Your task to perform on an android device: turn pop-ups on in chrome Image 0: 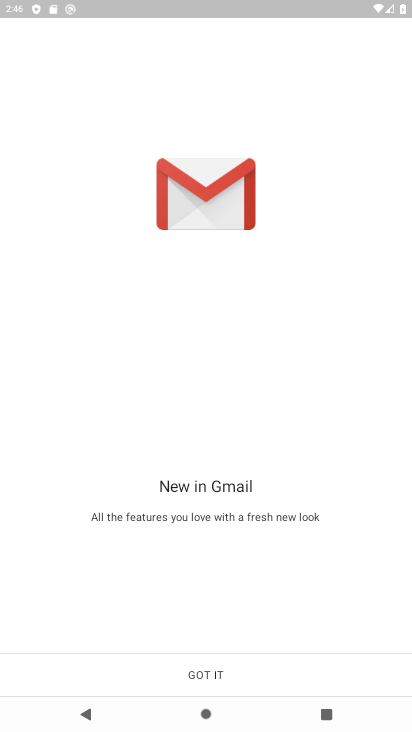
Step 0: press home button
Your task to perform on an android device: turn pop-ups on in chrome Image 1: 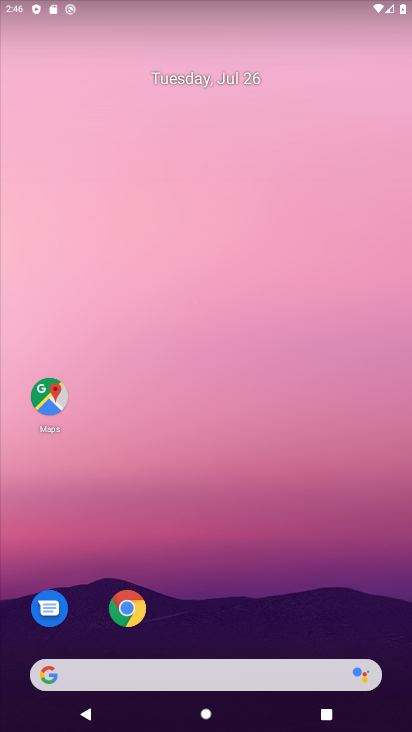
Step 1: click (136, 610)
Your task to perform on an android device: turn pop-ups on in chrome Image 2: 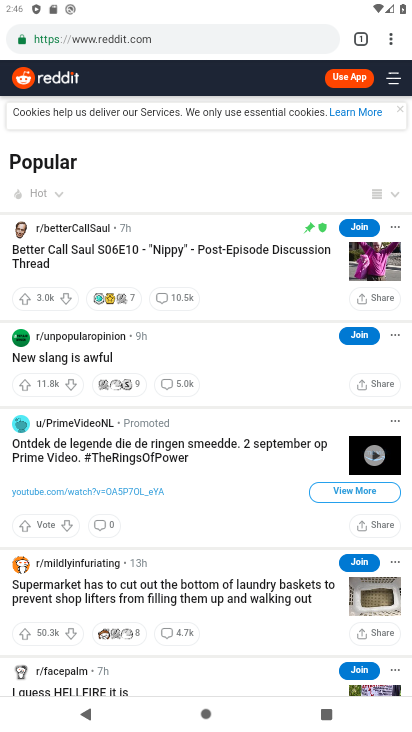
Step 2: click (402, 49)
Your task to perform on an android device: turn pop-ups on in chrome Image 3: 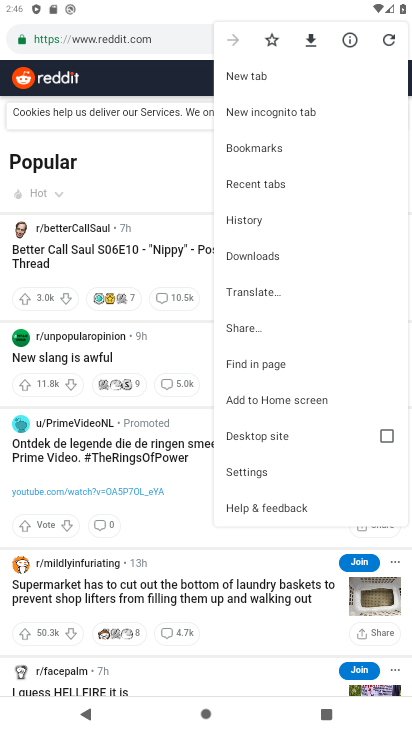
Step 3: click (234, 476)
Your task to perform on an android device: turn pop-ups on in chrome Image 4: 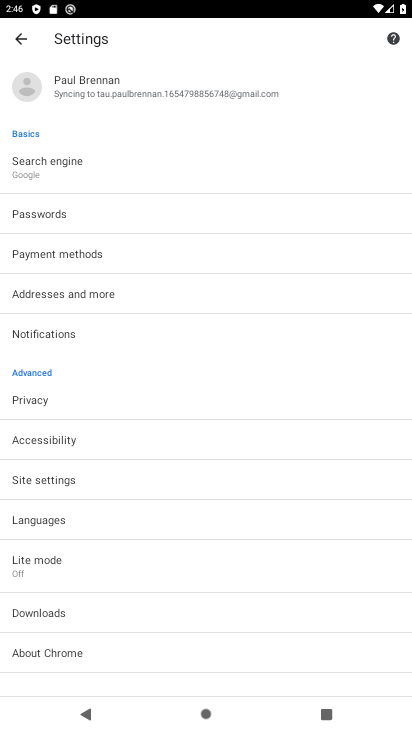
Step 4: drag from (81, 570) to (86, 302)
Your task to perform on an android device: turn pop-ups on in chrome Image 5: 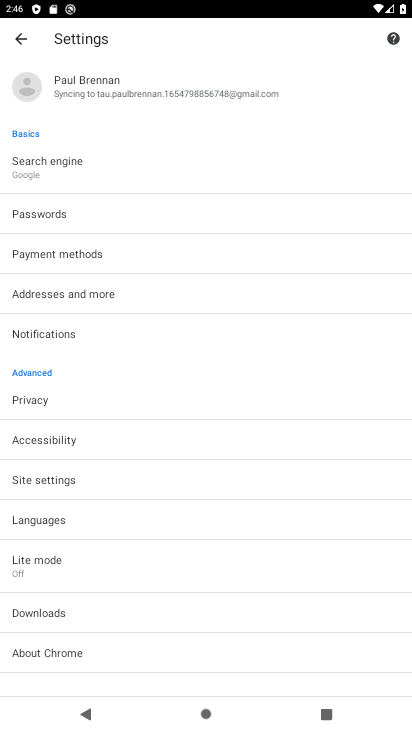
Step 5: click (62, 476)
Your task to perform on an android device: turn pop-ups on in chrome Image 6: 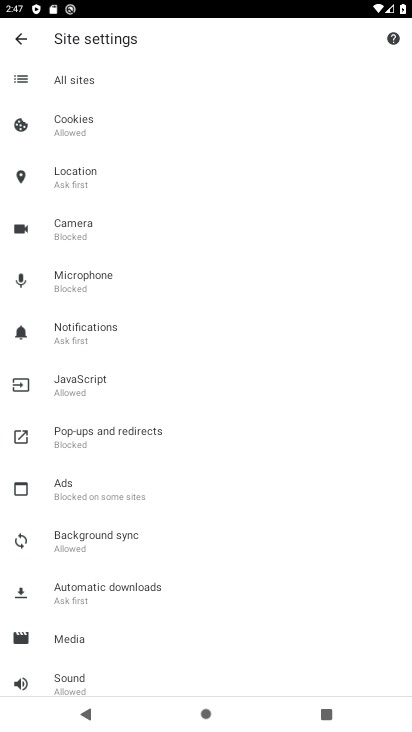
Step 6: click (90, 438)
Your task to perform on an android device: turn pop-ups on in chrome Image 7: 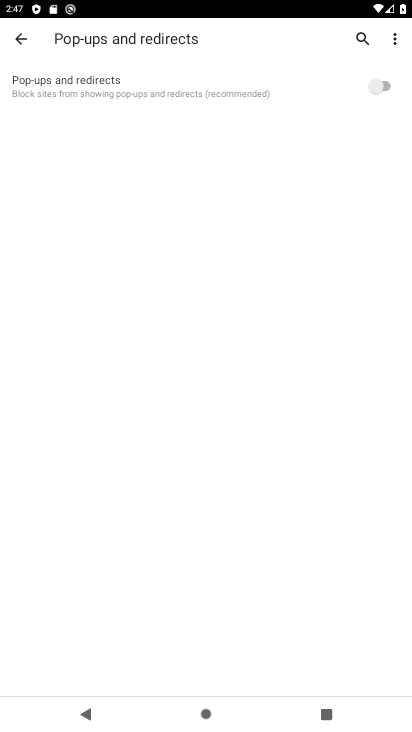
Step 7: click (348, 81)
Your task to perform on an android device: turn pop-ups on in chrome Image 8: 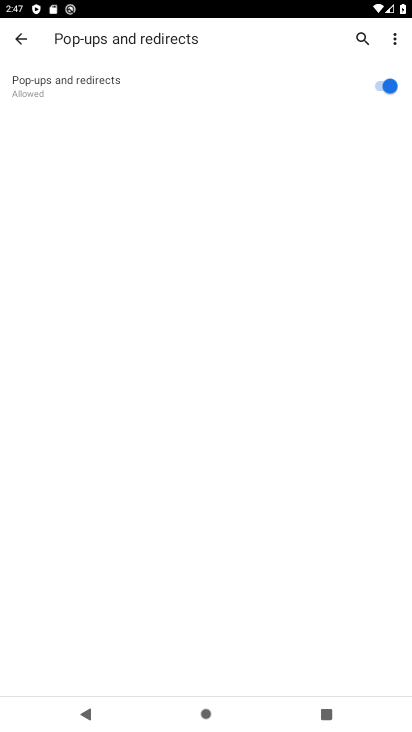
Step 8: task complete